Your task to perform on an android device: snooze an email in the gmail app Image 0: 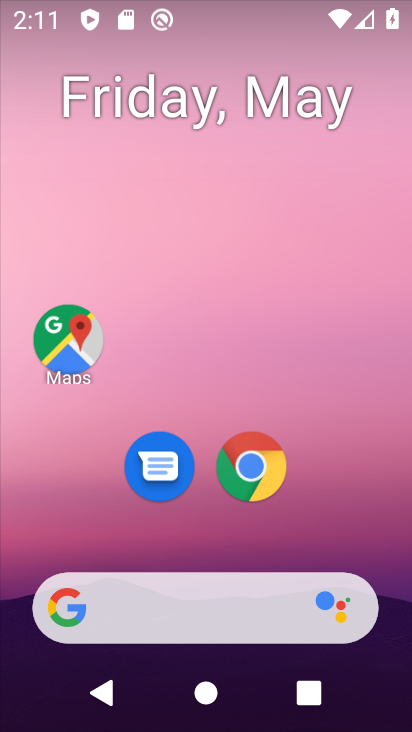
Step 0: drag from (335, 506) to (285, 139)
Your task to perform on an android device: snooze an email in the gmail app Image 1: 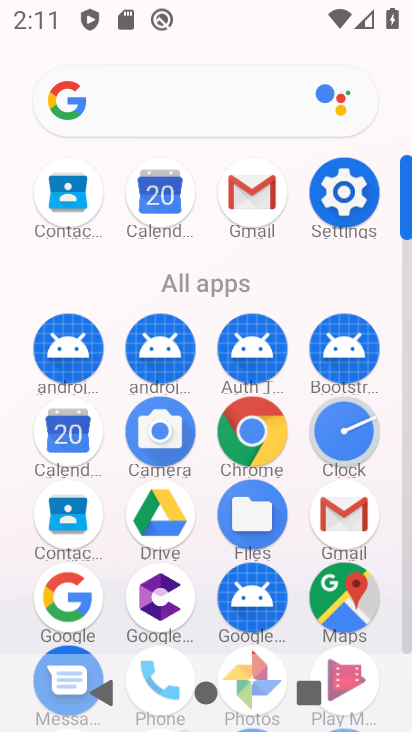
Step 1: click (336, 190)
Your task to perform on an android device: snooze an email in the gmail app Image 2: 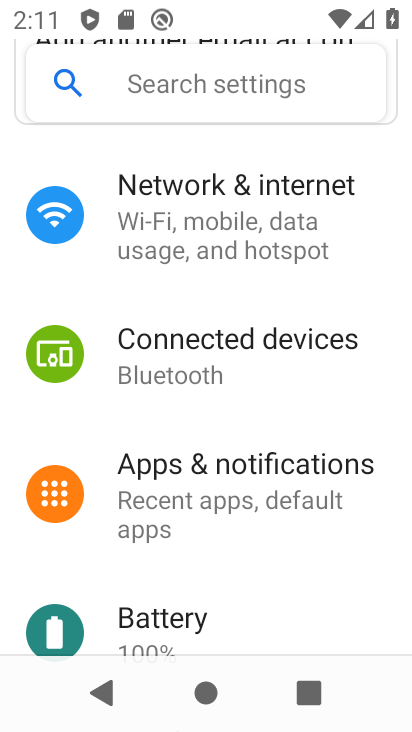
Step 2: press back button
Your task to perform on an android device: snooze an email in the gmail app Image 3: 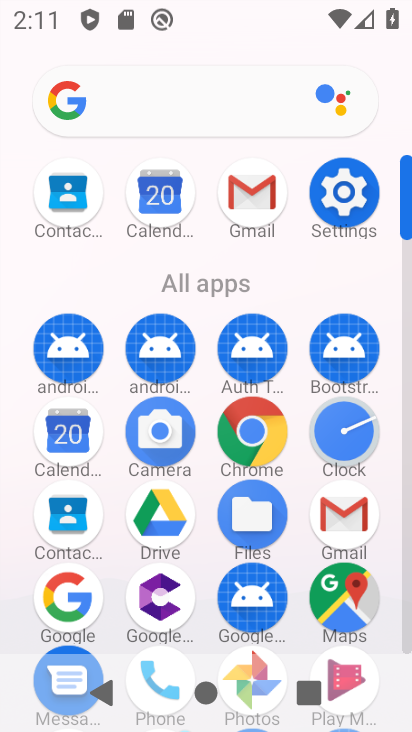
Step 3: click (352, 539)
Your task to perform on an android device: snooze an email in the gmail app Image 4: 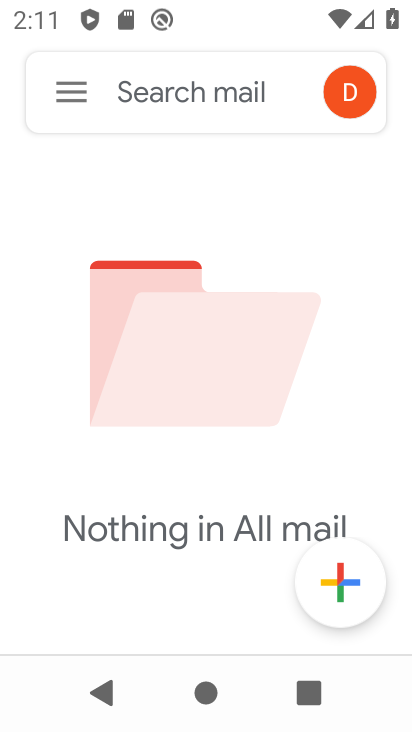
Step 4: click (51, 79)
Your task to perform on an android device: snooze an email in the gmail app Image 5: 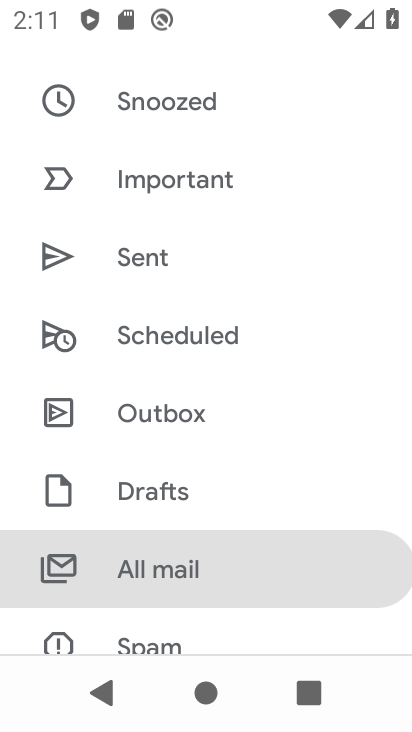
Step 5: task complete